Your task to perform on an android device: Go to display settings Image 0: 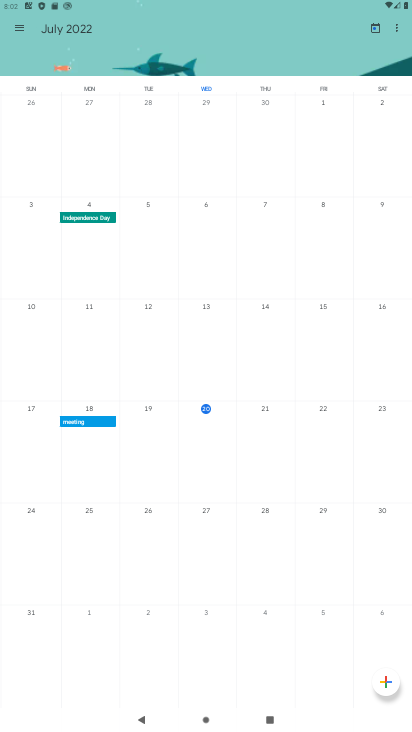
Step 0: press home button
Your task to perform on an android device: Go to display settings Image 1: 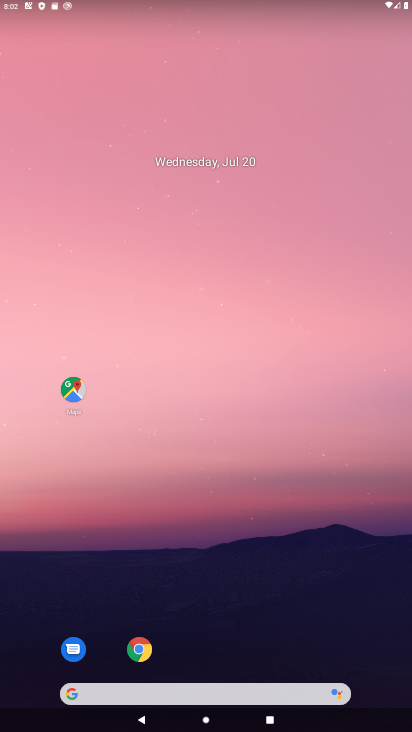
Step 1: drag from (198, 690) to (313, 83)
Your task to perform on an android device: Go to display settings Image 2: 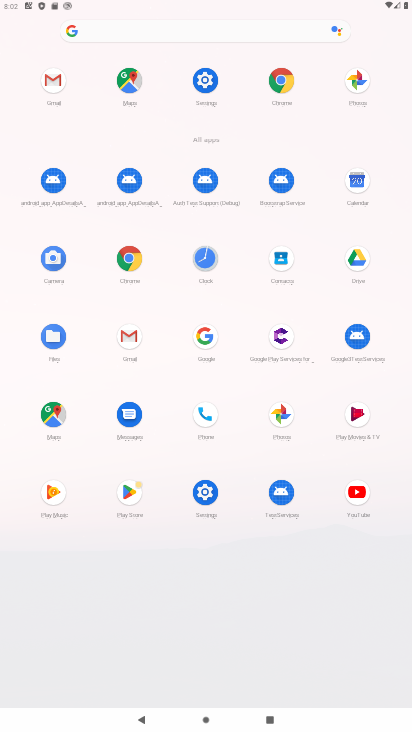
Step 2: click (204, 81)
Your task to perform on an android device: Go to display settings Image 3: 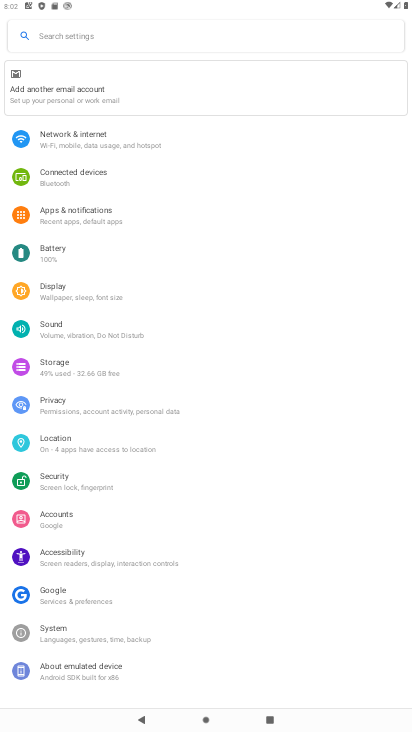
Step 3: click (51, 290)
Your task to perform on an android device: Go to display settings Image 4: 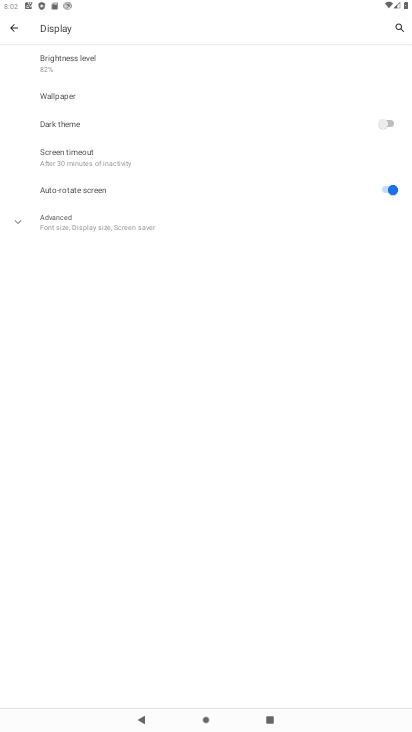
Step 4: task complete